Your task to perform on an android device: stop showing notifications on the lock screen Image 0: 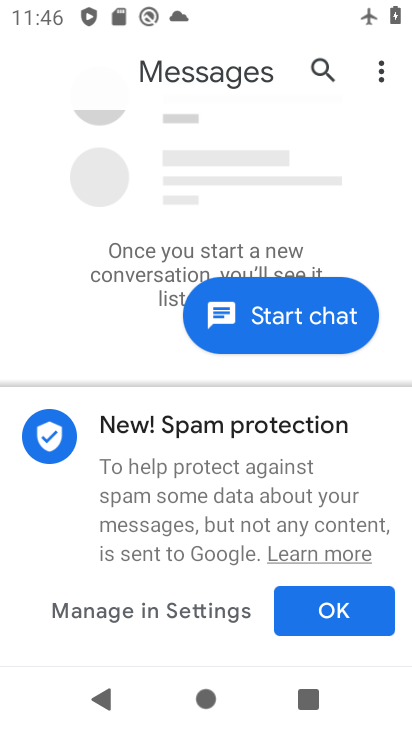
Step 0: press home button
Your task to perform on an android device: stop showing notifications on the lock screen Image 1: 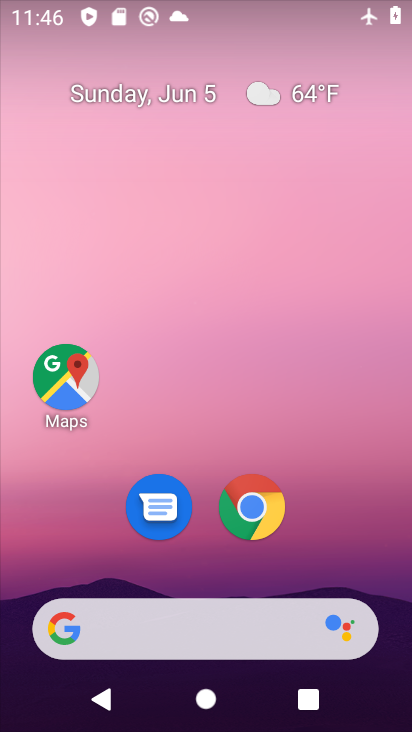
Step 1: drag from (322, 463) to (232, 112)
Your task to perform on an android device: stop showing notifications on the lock screen Image 2: 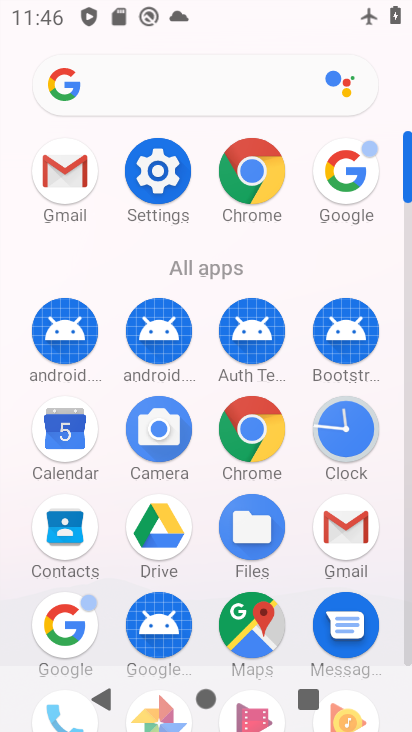
Step 2: click (341, 447)
Your task to perform on an android device: stop showing notifications on the lock screen Image 3: 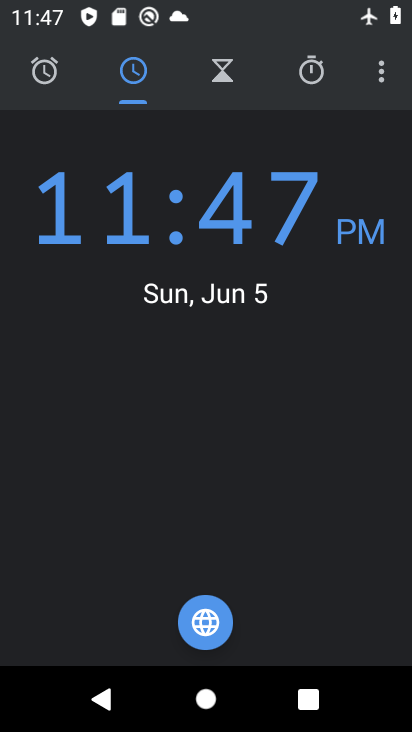
Step 3: drag from (380, 76) to (403, 121)
Your task to perform on an android device: stop showing notifications on the lock screen Image 4: 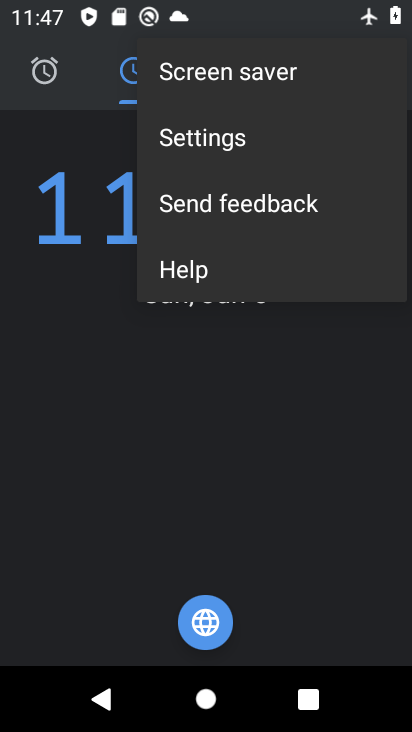
Step 4: press home button
Your task to perform on an android device: stop showing notifications on the lock screen Image 5: 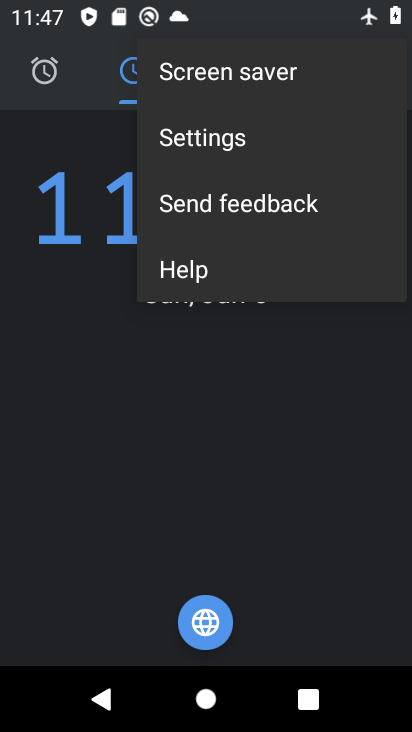
Step 5: click (411, 351)
Your task to perform on an android device: stop showing notifications on the lock screen Image 6: 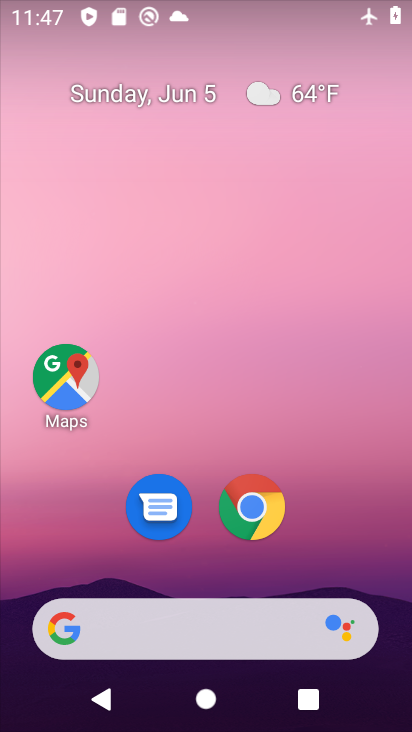
Step 6: drag from (330, 539) to (325, 177)
Your task to perform on an android device: stop showing notifications on the lock screen Image 7: 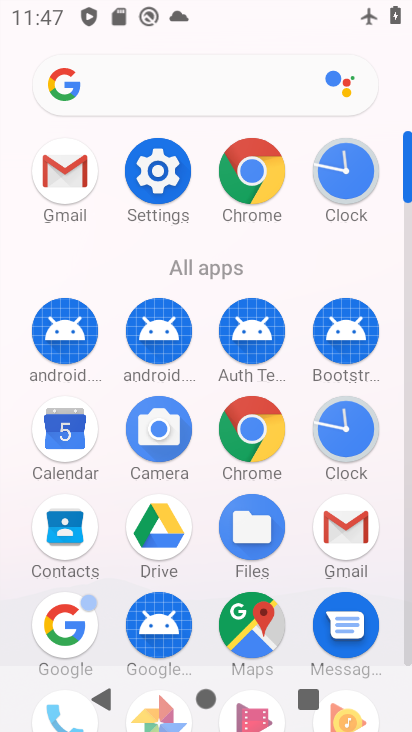
Step 7: click (168, 184)
Your task to perform on an android device: stop showing notifications on the lock screen Image 8: 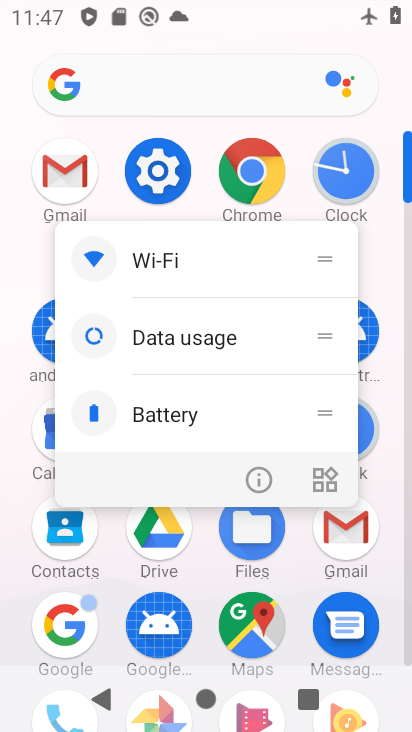
Step 8: click (162, 172)
Your task to perform on an android device: stop showing notifications on the lock screen Image 9: 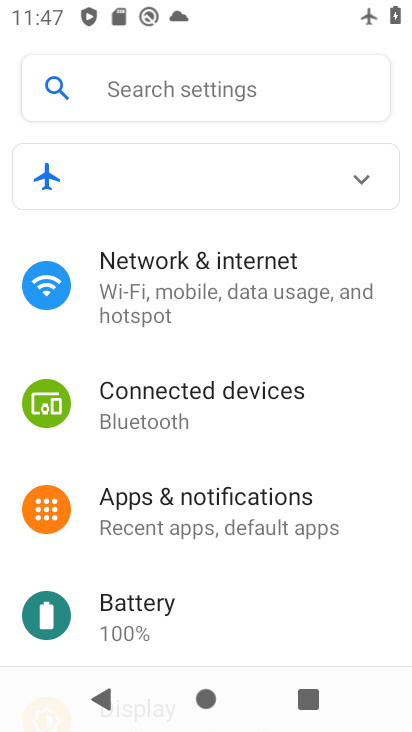
Step 9: click (229, 501)
Your task to perform on an android device: stop showing notifications on the lock screen Image 10: 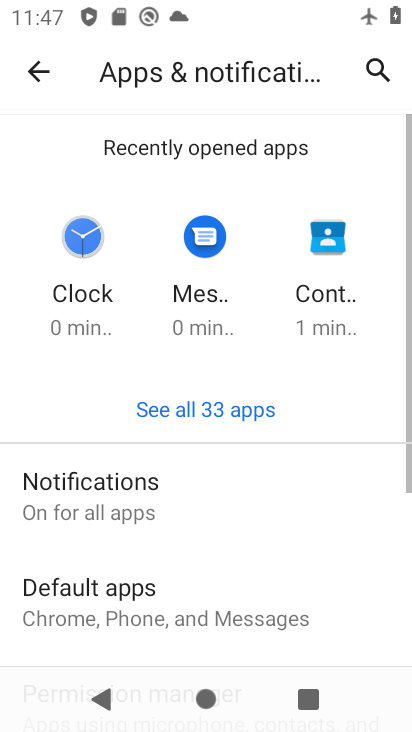
Step 10: click (143, 508)
Your task to perform on an android device: stop showing notifications on the lock screen Image 11: 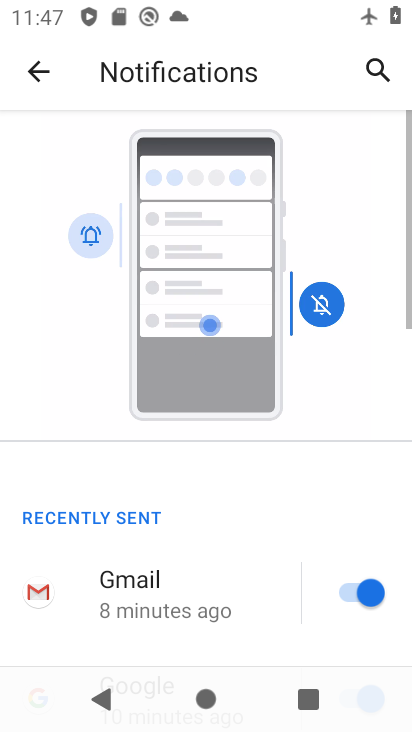
Step 11: drag from (282, 543) to (238, 86)
Your task to perform on an android device: stop showing notifications on the lock screen Image 12: 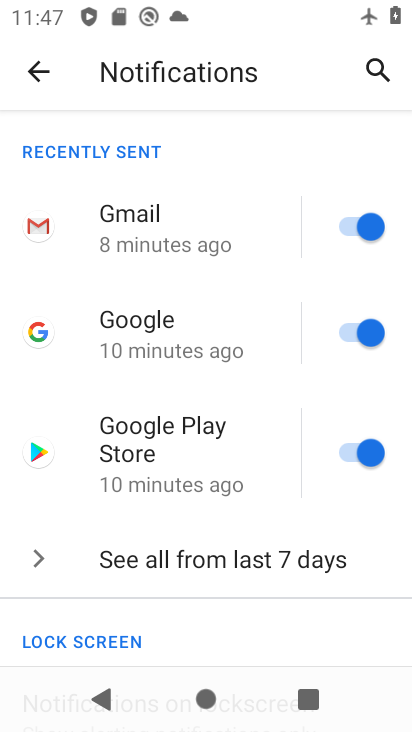
Step 12: drag from (206, 618) to (217, 159)
Your task to perform on an android device: stop showing notifications on the lock screen Image 13: 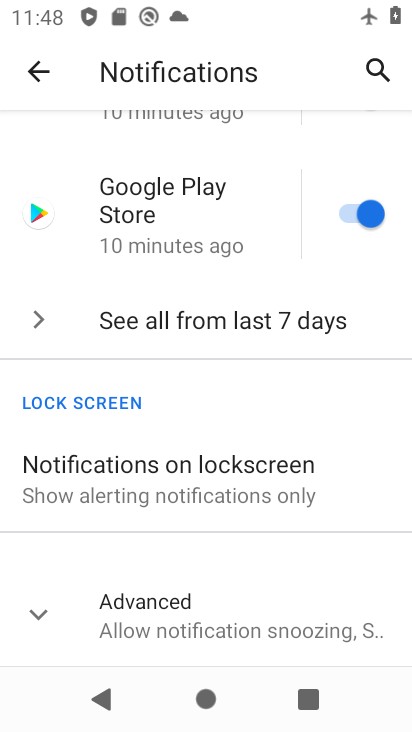
Step 13: click (185, 490)
Your task to perform on an android device: stop showing notifications on the lock screen Image 14: 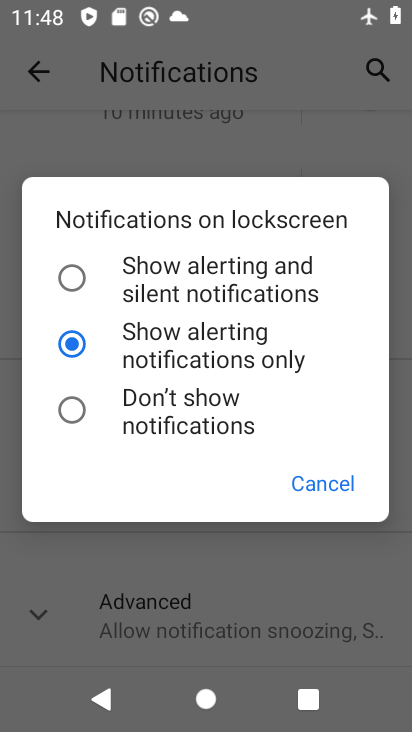
Step 14: click (143, 406)
Your task to perform on an android device: stop showing notifications on the lock screen Image 15: 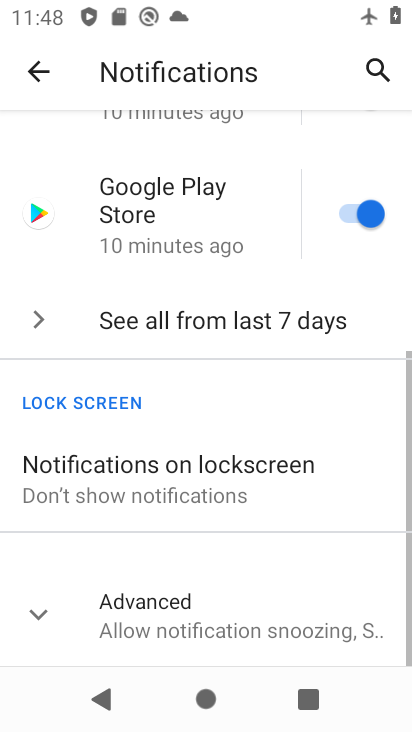
Step 15: task complete